Your task to perform on an android device: delete location history Image 0: 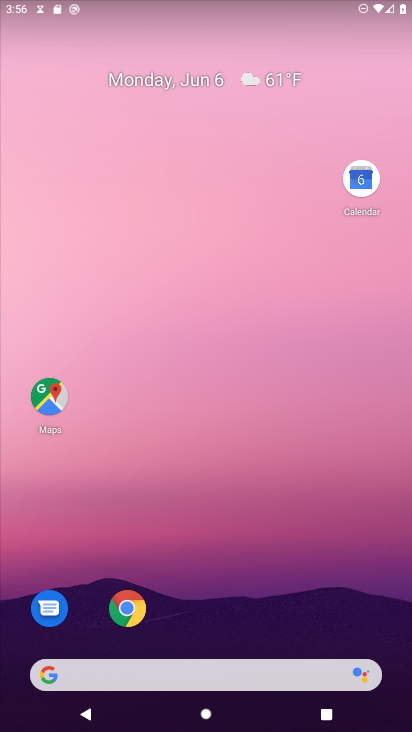
Step 0: drag from (230, 624) to (313, 11)
Your task to perform on an android device: delete location history Image 1: 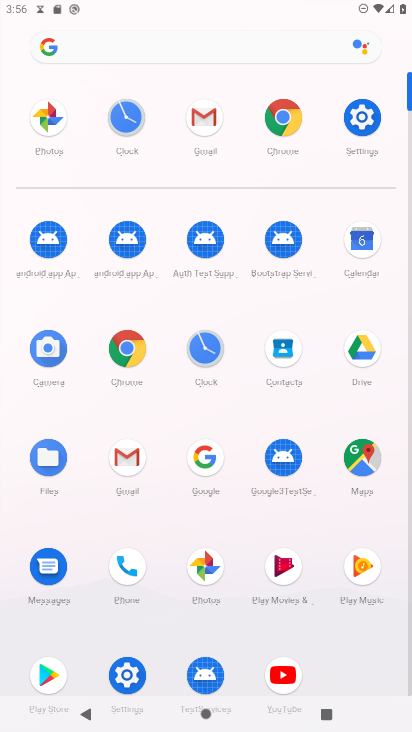
Step 1: click (371, 450)
Your task to perform on an android device: delete location history Image 2: 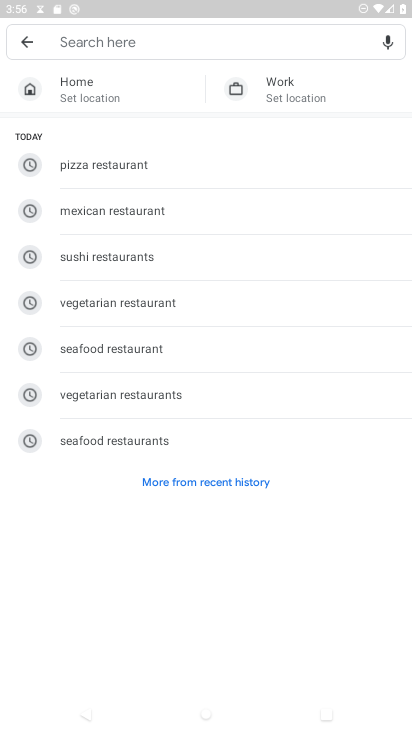
Step 2: click (15, 44)
Your task to perform on an android device: delete location history Image 3: 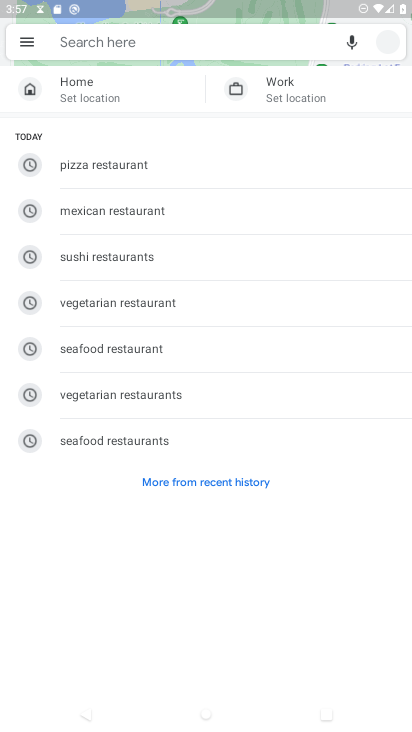
Step 3: click (31, 39)
Your task to perform on an android device: delete location history Image 4: 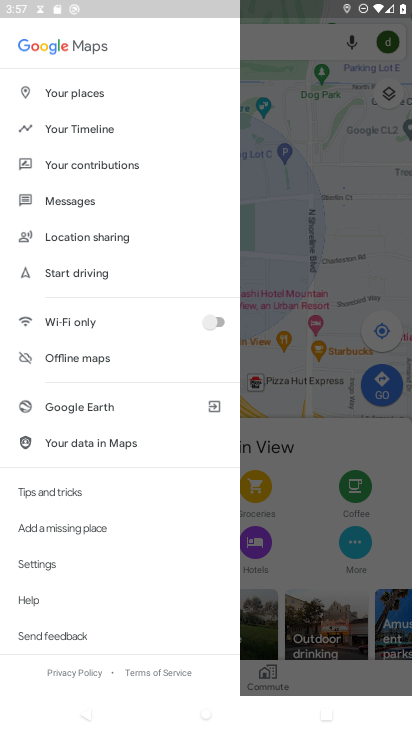
Step 4: click (85, 132)
Your task to perform on an android device: delete location history Image 5: 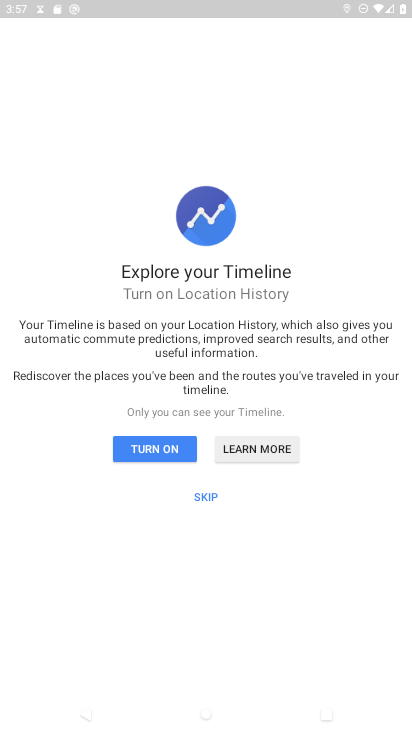
Step 5: click (200, 490)
Your task to perform on an android device: delete location history Image 6: 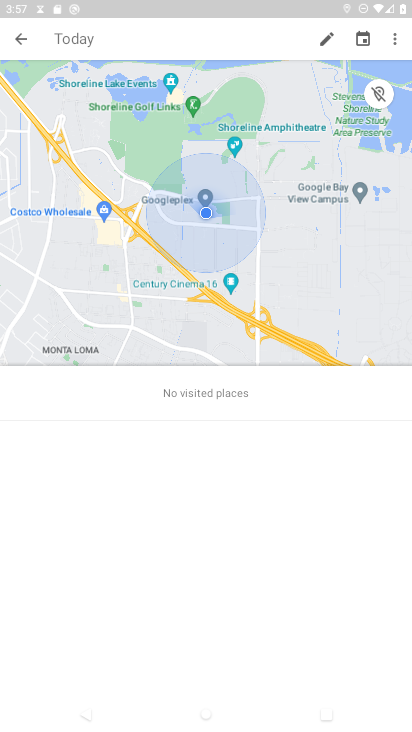
Step 6: click (391, 43)
Your task to perform on an android device: delete location history Image 7: 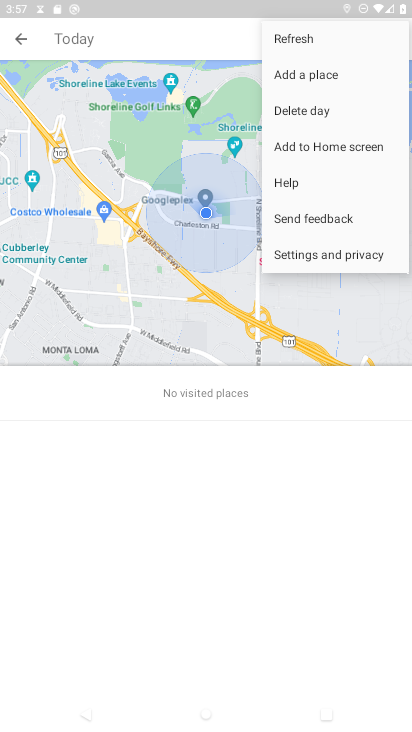
Step 7: click (311, 257)
Your task to perform on an android device: delete location history Image 8: 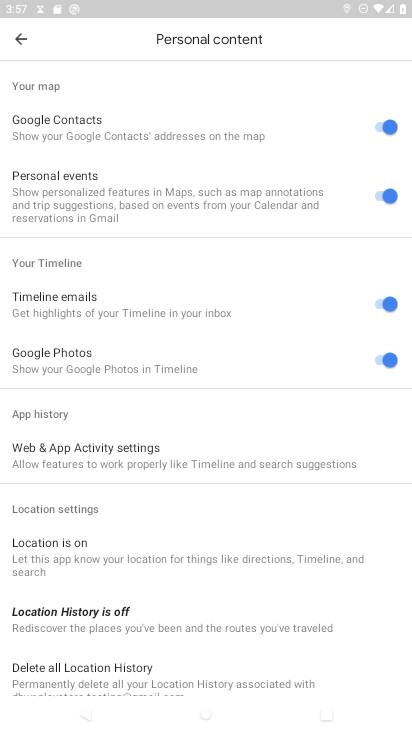
Step 8: drag from (115, 672) to (112, 349)
Your task to perform on an android device: delete location history Image 9: 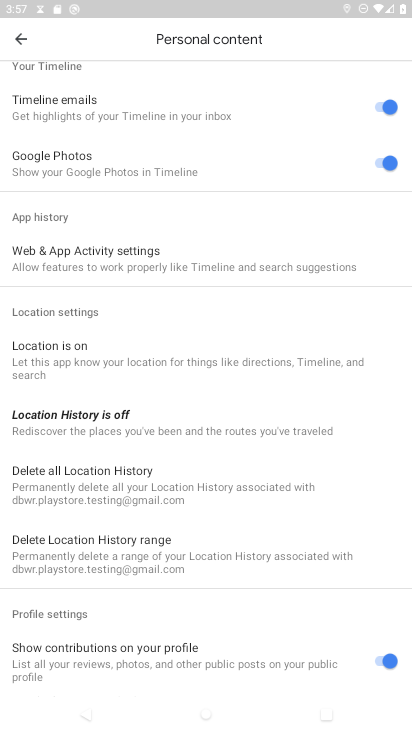
Step 9: click (103, 478)
Your task to perform on an android device: delete location history Image 10: 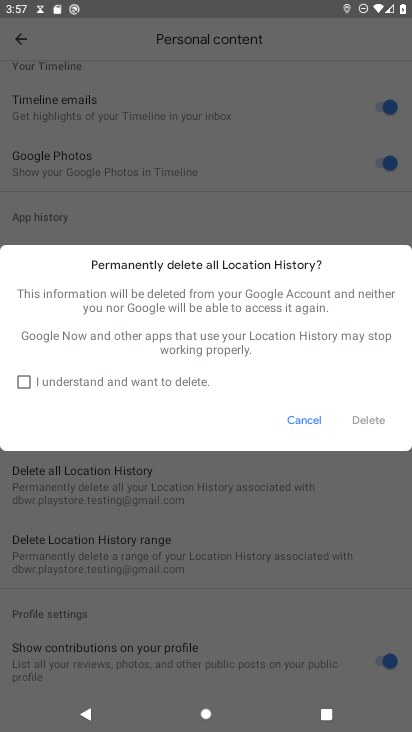
Step 10: click (198, 386)
Your task to perform on an android device: delete location history Image 11: 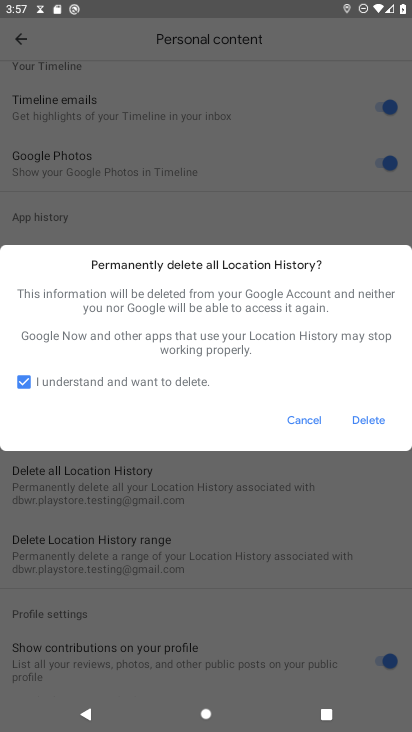
Step 11: click (386, 426)
Your task to perform on an android device: delete location history Image 12: 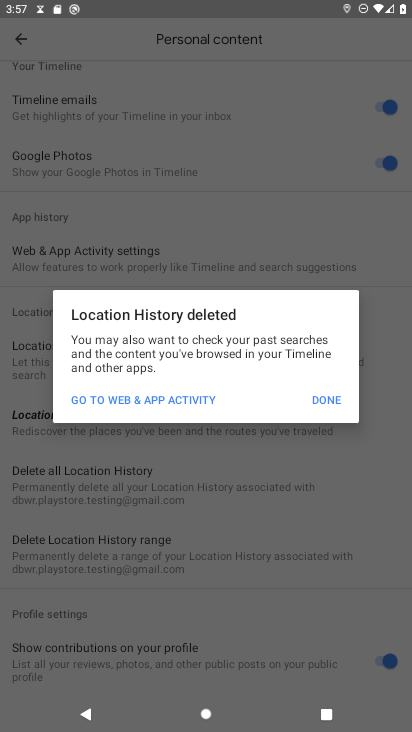
Step 12: click (336, 400)
Your task to perform on an android device: delete location history Image 13: 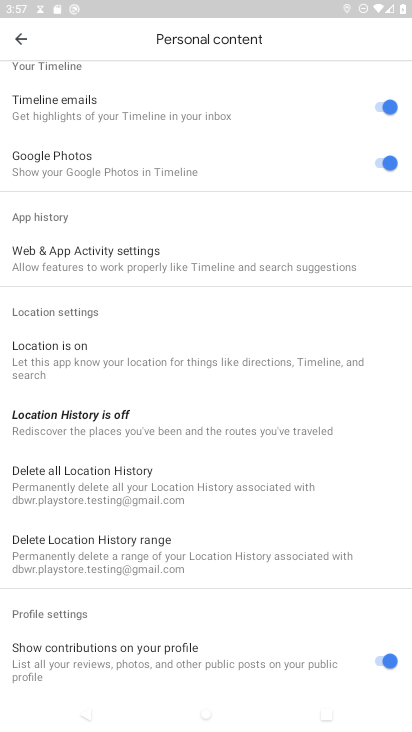
Step 13: task complete